Your task to perform on an android device: visit the assistant section in the google photos Image 0: 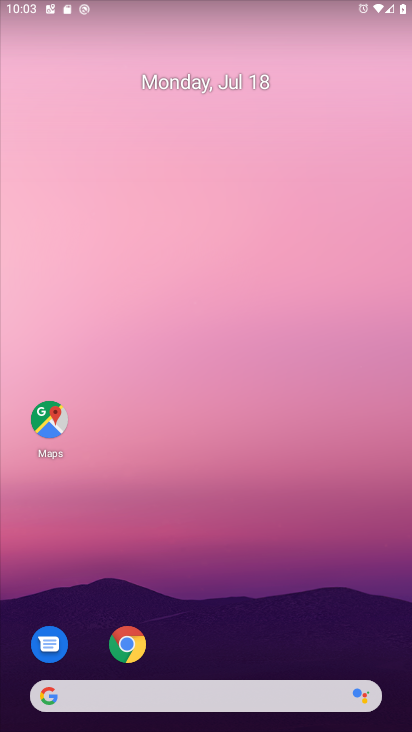
Step 0: drag from (208, 653) to (247, 145)
Your task to perform on an android device: visit the assistant section in the google photos Image 1: 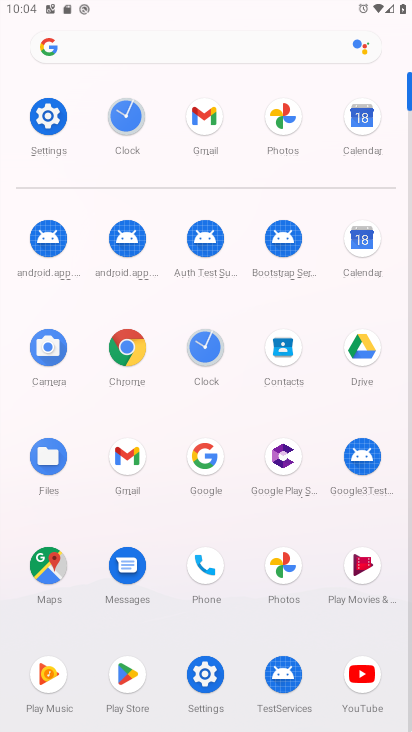
Step 1: click (274, 556)
Your task to perform on an android device: visit the assistant section in the google photos Image 2: 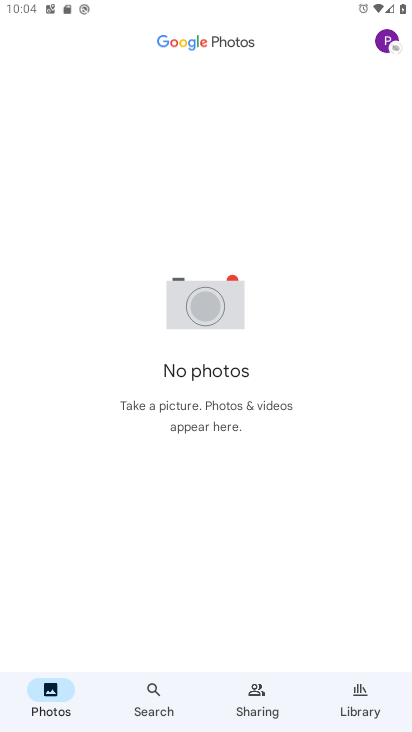
Step 2: task complete